Your task to perform on an android device: Open Google Chrome and click the shortcut for Amazon.com Image 0: 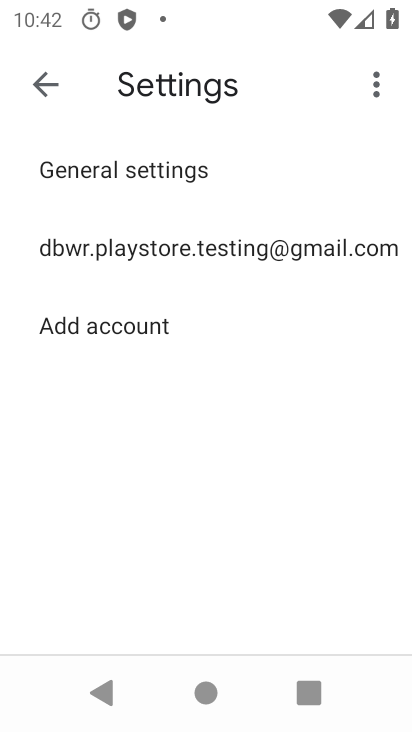
Step 0: press home button
Your task to perform on an android device: Open Google Chrome and click the shortcut for Amazon.com Image 1: 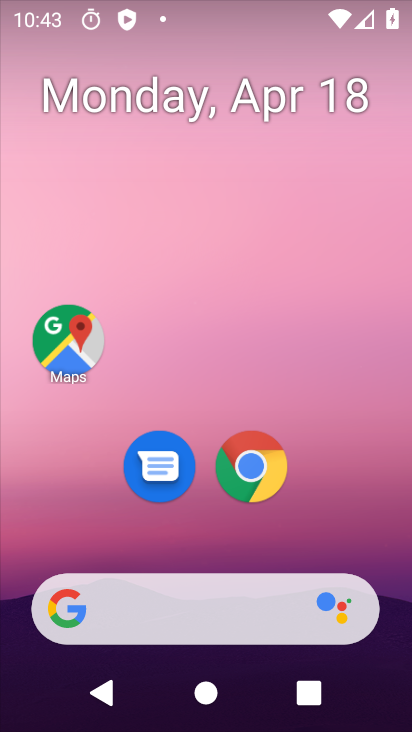
Step 1: drag from (233, 539) to (249, 103)
Your task to perform on an android device: Open Google Chrome and click the shortcut for Amazon.com Image 2: 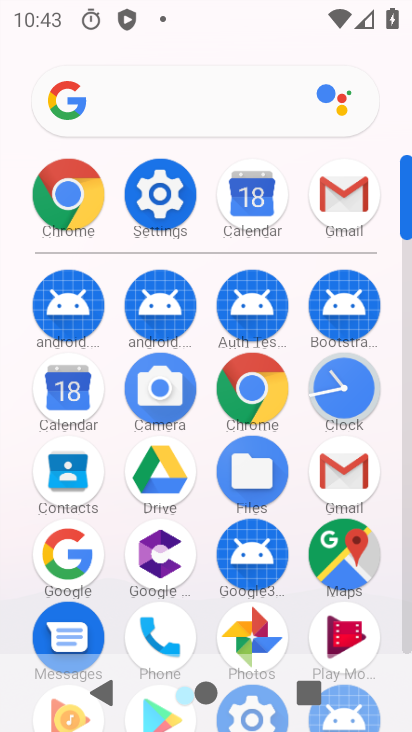
Step 2: click (246, 401)
Your task to perform on an android device: Open Google Chrome and click the shortcut for Amazon.com Image 3: 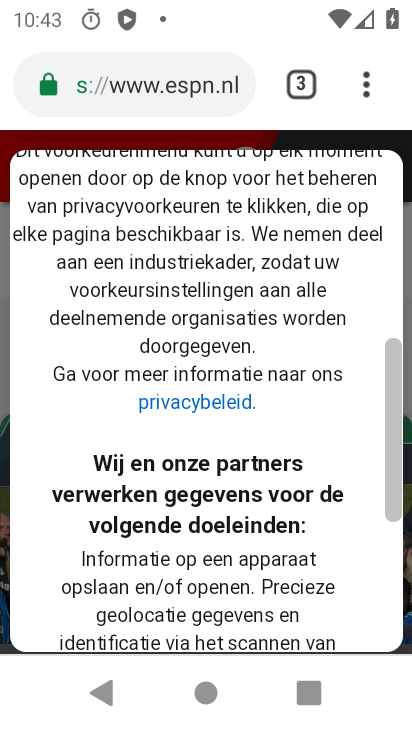
Step 3: drag from (219, 91) to (186, 331)
Your task to perform on an android device: Open Google Chrome and click the shortcut for Amazon.com Image 4: 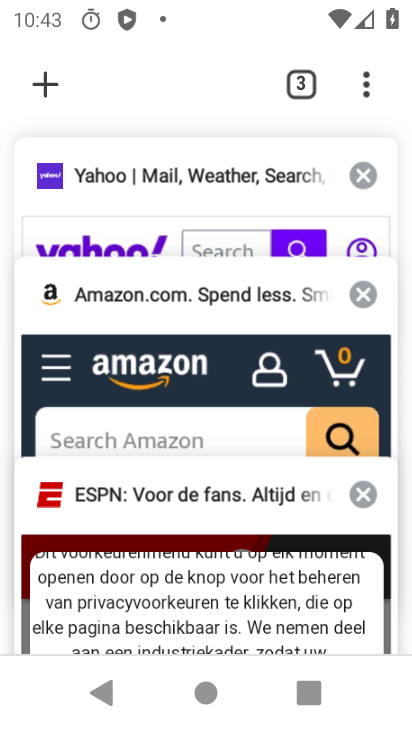
Step 4: click (49, 87)
Your task to perform on an android device: Open Google Chrome and click the shortcut for Amazon.com Image 5: 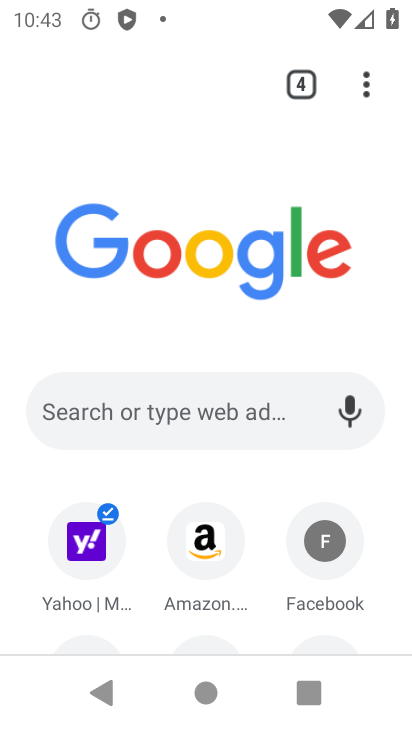
Step 5: click (217, 543)
Your task to perform on an android device: Open Google Chrome and click the shortcut for Amazon.com Image 6: 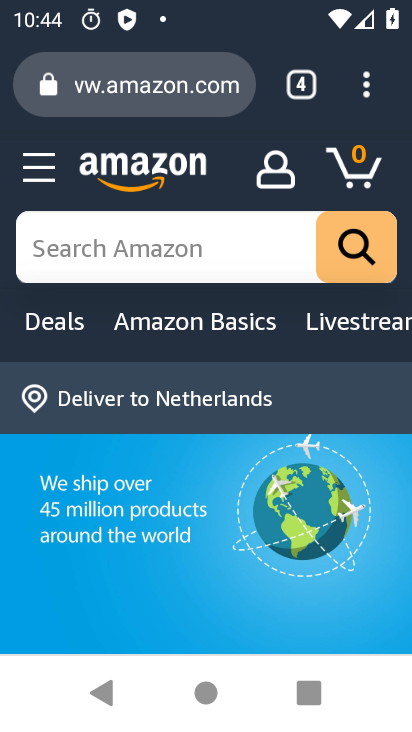
Step 6: task complete